Your task to perform on an android device: Open the Play Movies app and select the watchlist tab. Image 0: 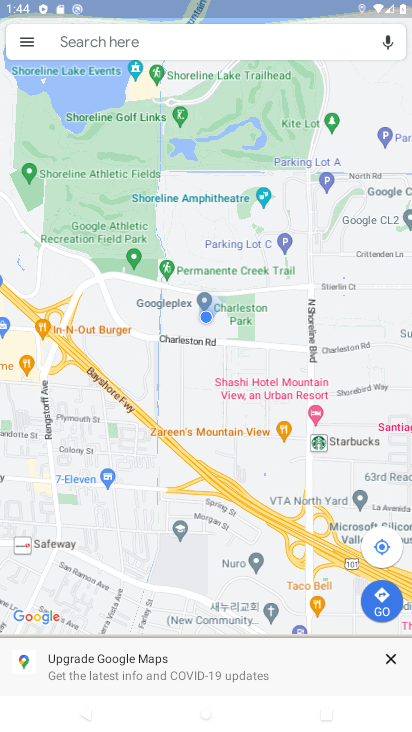
Step 0: press home button
Your task to perform on an android device: Open the Play Movies app and select the watchlist tab. Image 1: 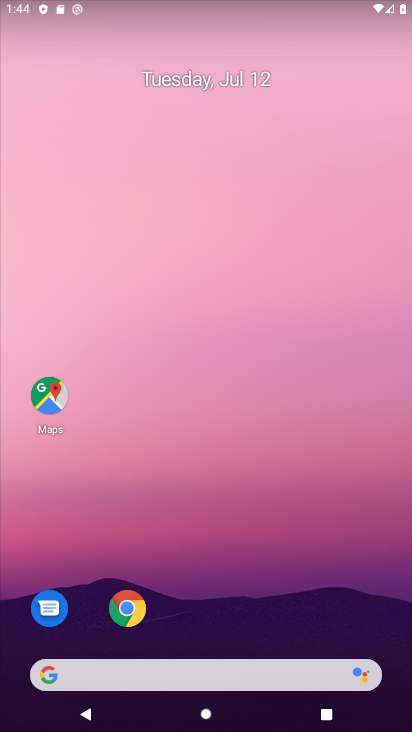
Step 1: drag from (311, 584) to (285, 110)
Your task to perform on an android device: Open the Play Movies app and select the watchlist tab. Image 2: 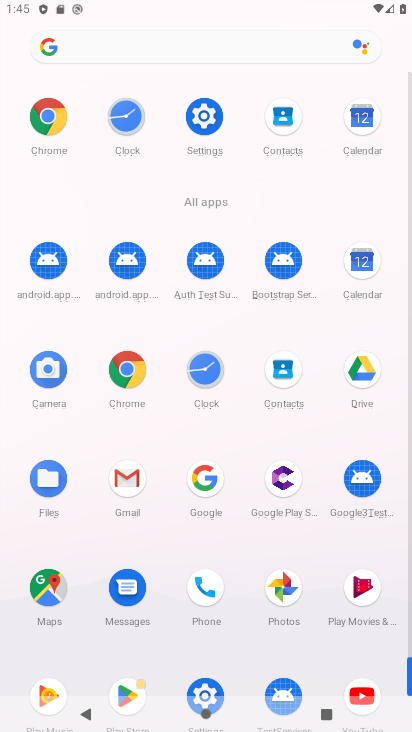
Step 2: click (364, 582)
Your task to perform on an android device: Open the Play Movies app and select the watchlist tab. Image 3: 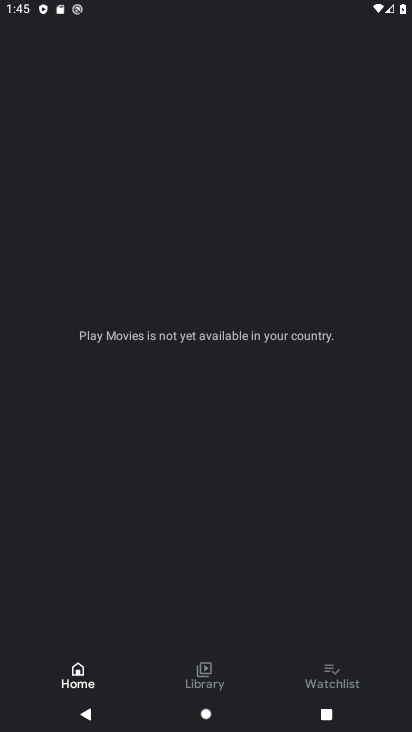
Step 3: click (331, 683)
Your task to perform on an android device: Open the Play Movies app and select the watchlist tab. Image 4: 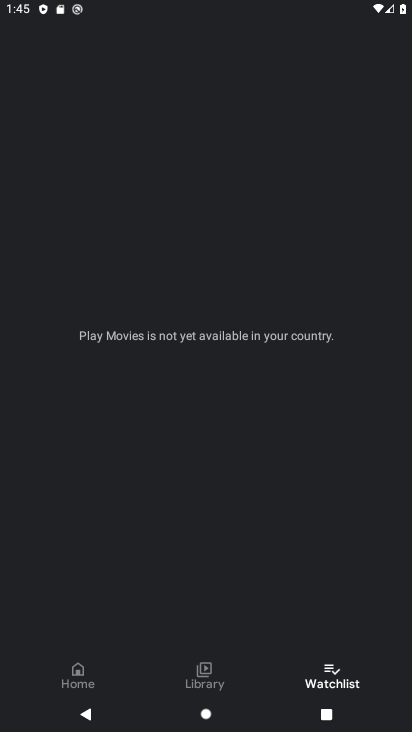
Step 4: task complete